Your task to perform on an android device: turn notification dots on Image 0: 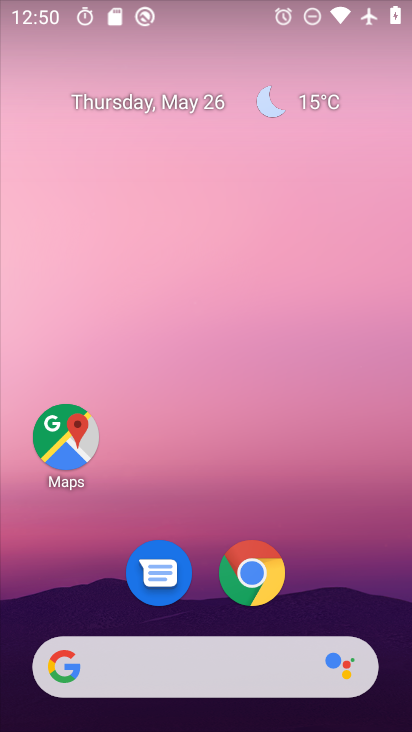
Step 0: drag from (380, 630) to (358, 4)
Your task to perform on an android device: turn notification dots on Image 1: 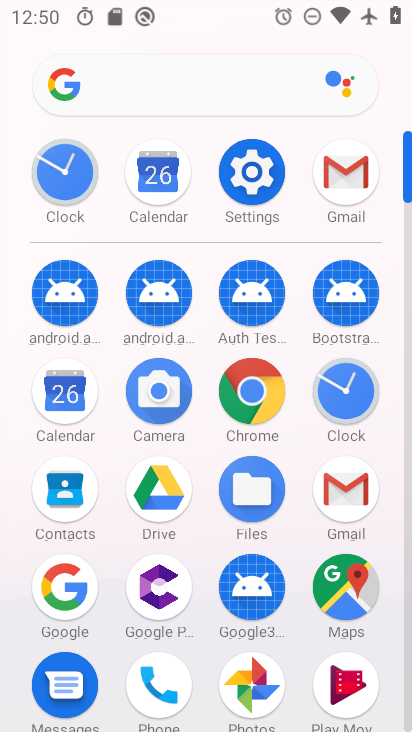
Step 1: click (255, 176)
Your task to perform on an android device: turn notification dots on Image 2: 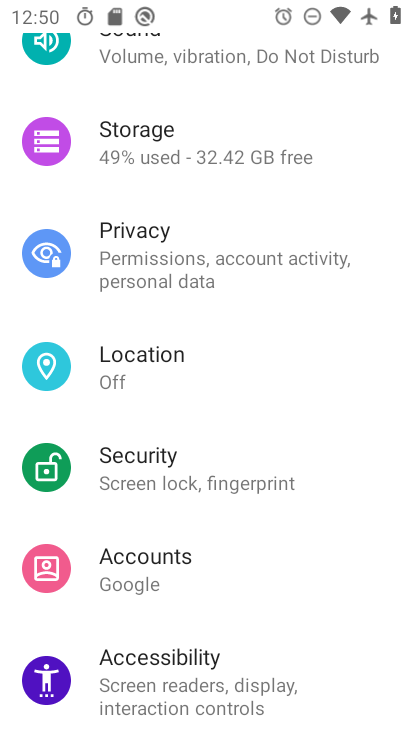
Step 2: drag from (254, 190) to (283, 588)
Your task to perform on an android device: turn notification dots on Image 3: 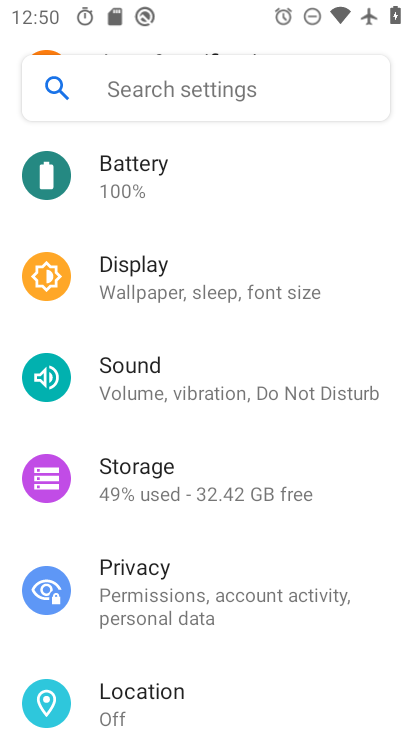
Step 3: drag from (264, 271) to (272, 512)
Your task to perform on an android device: turn notification dots on Image 4: 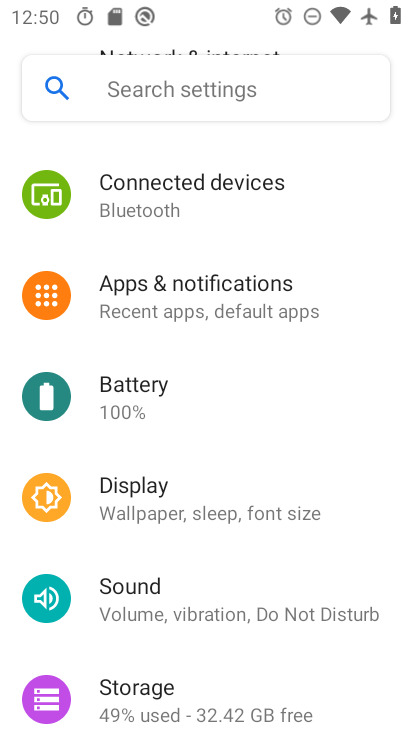
Step 4: click (182, 303)
Your task to perform on an android device: turn notification dots on Image 5: 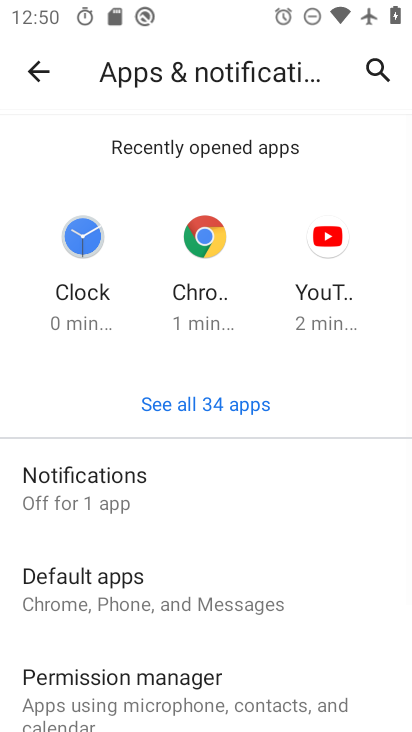
Step 5: click (59, 490)
Your task to perform on an android device: turn notification dots on Image 6: 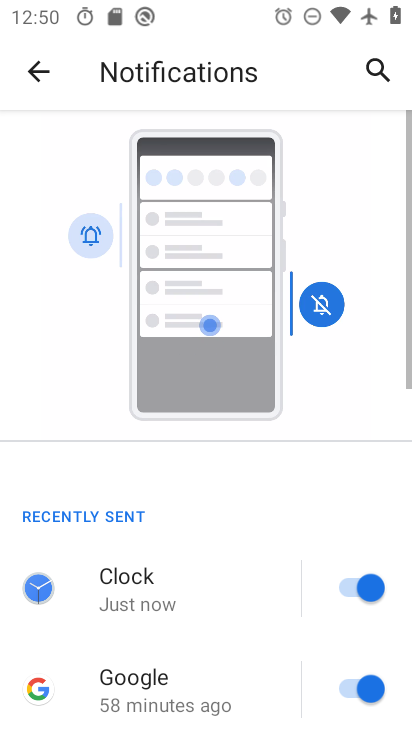
Step 6: drag from (188, 535) to (123, 126)
Your task to perform on an android device: turn notification dots on Image 7: 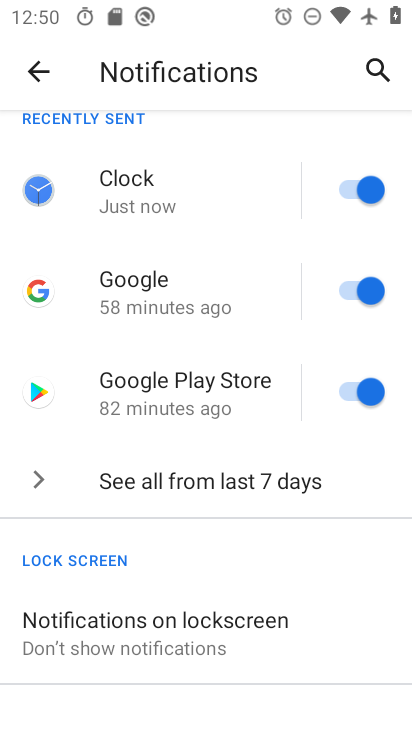
Step 7: drag from (152, 601) to (138, 282)
Your task to perform on an android device: turn notification dots on Image 8: 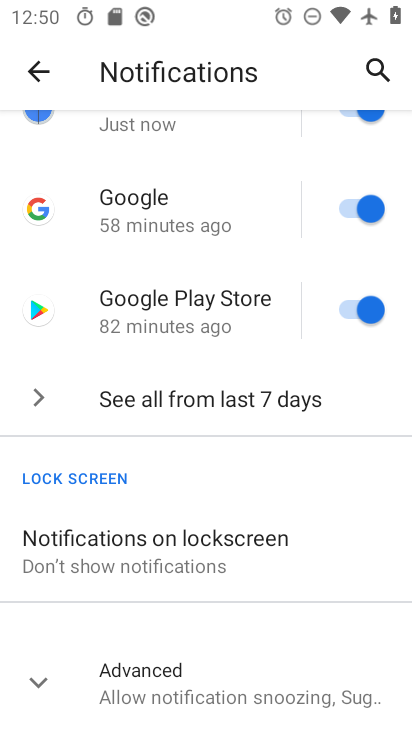
Step 8: click (39, 685)
Your task to perform on an android device: turn notification dots on Image 9: 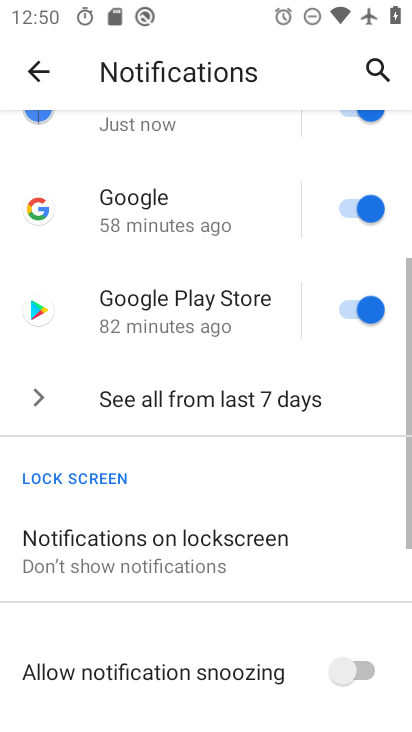
Step 9: drag from (180, 661) to (125, 308)
Your task to perform on an android device: turn notification dots on Image 10: 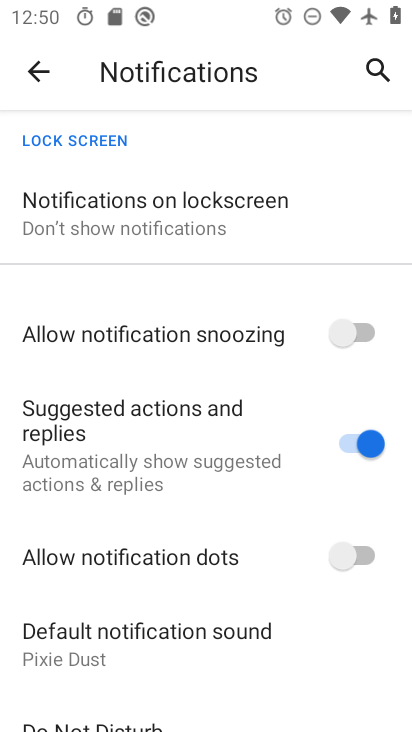
Step 10: click (359, 552)
Your task to perform on an android device: turn notification dots on Image 11: 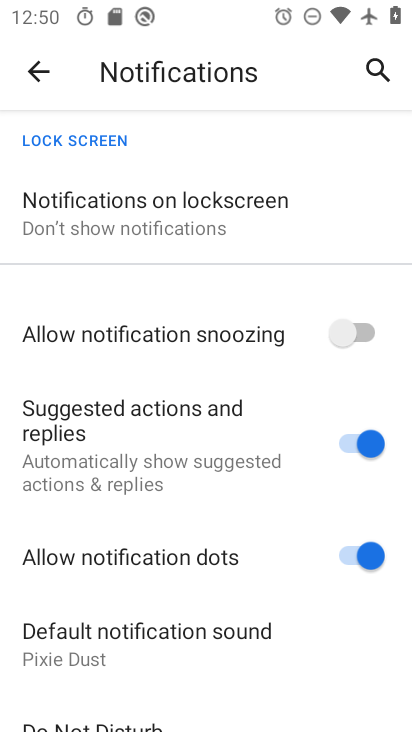
Step 11: task complete